Your task to perform on an android device: Add macbook pro to the cart on costco.com, then select checkout. Image 0: 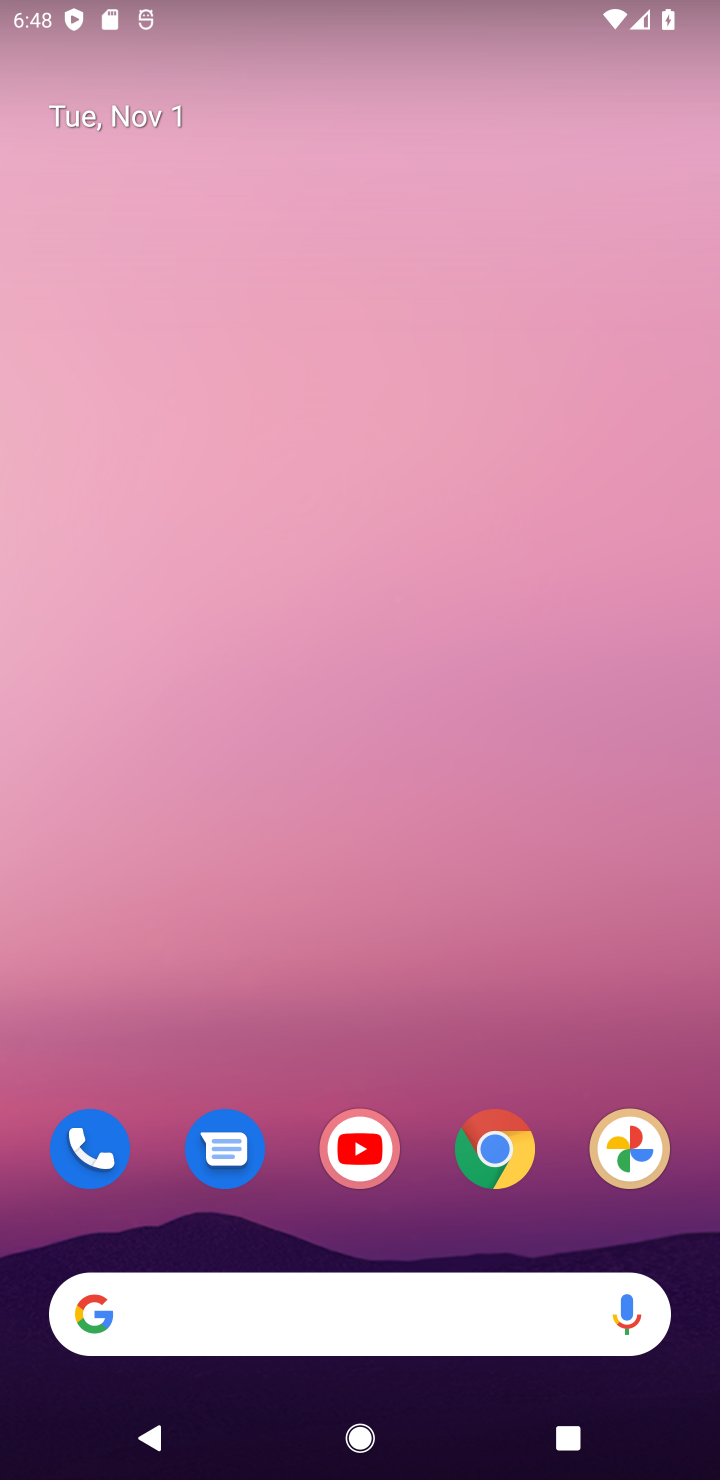
Step 0: drag from (292, 1246) to (482, 249)
Your task to perform on an android device: Add macbook pro to the cart on costco.com, then select checkout. Image 1: 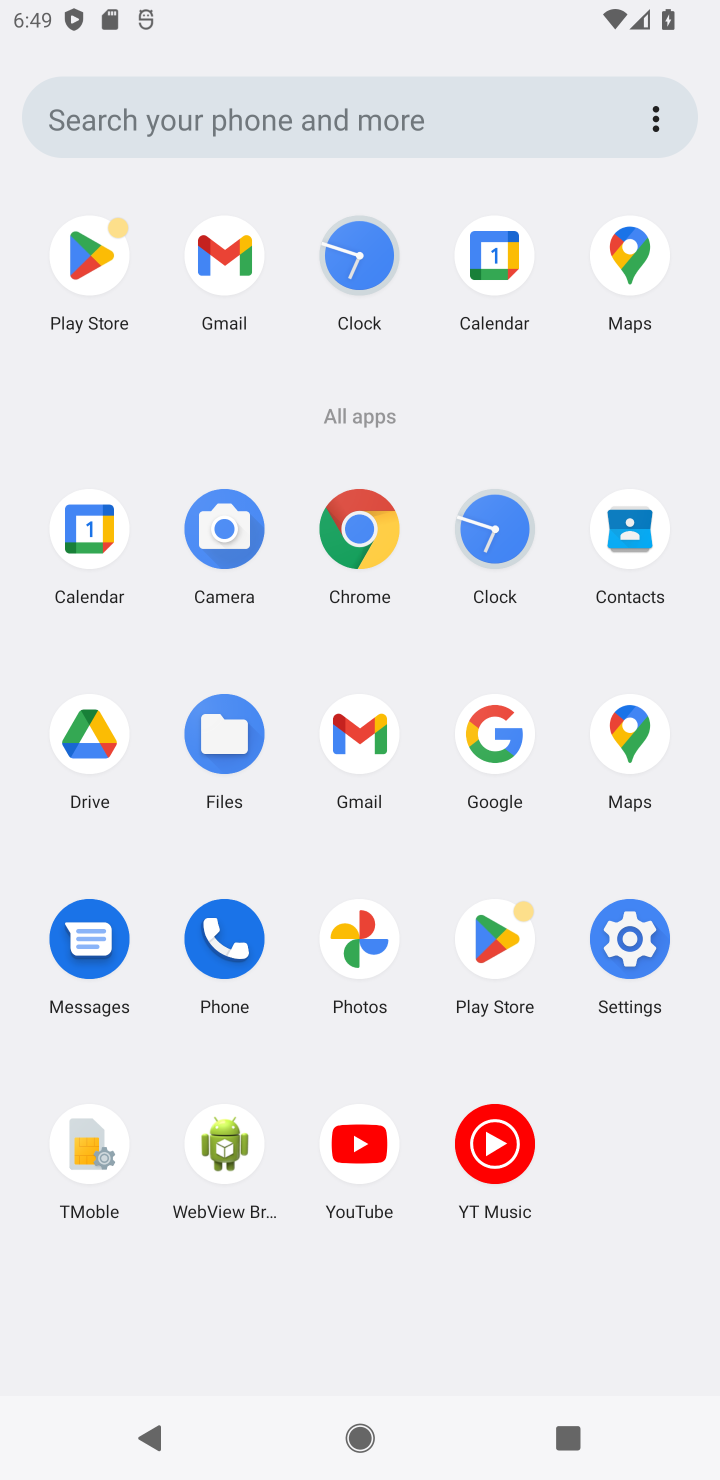
Step 1: click (366, 528)
Your task to perform on an android device: Add macbook pro to the cart on costco.com, then select checkout. Image 2: 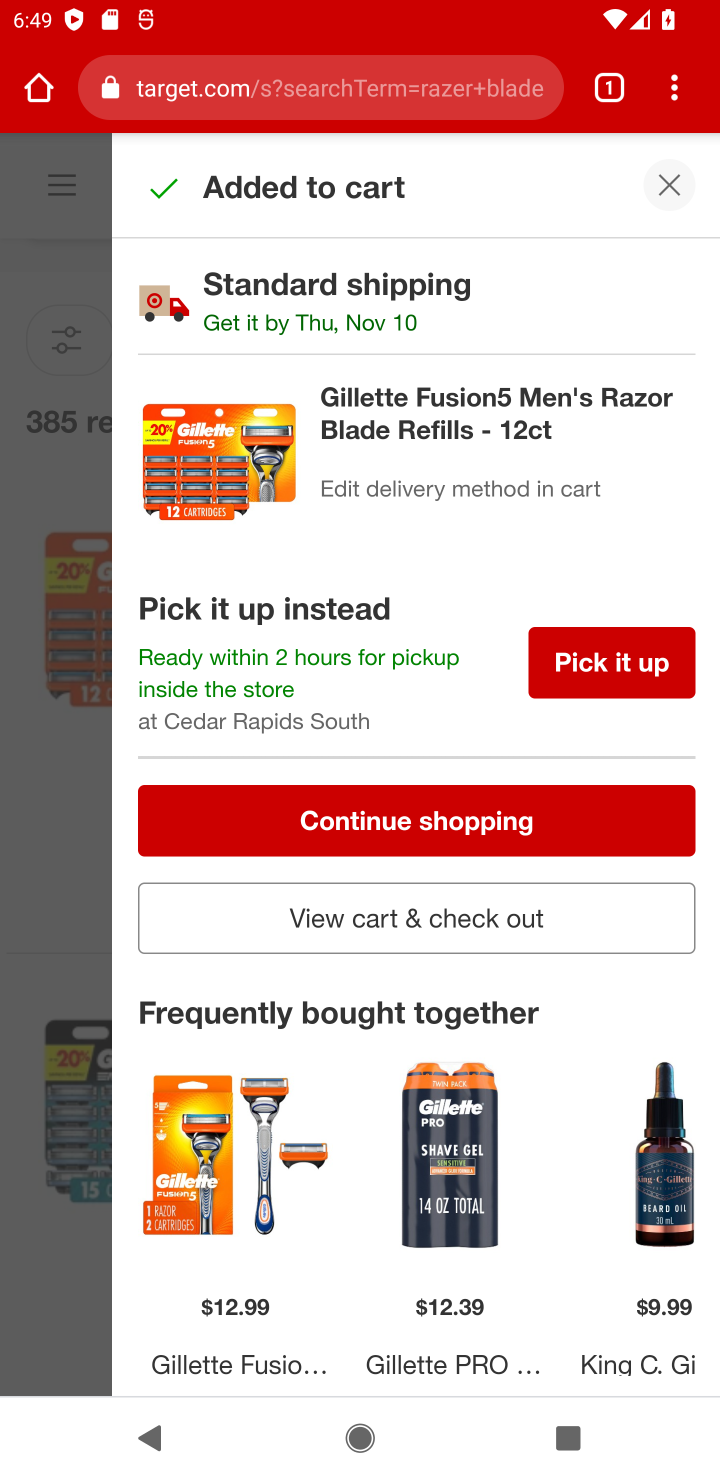
Step 2: click (467, 97)
Your task to perform on an android device: Add macbook pro to the cart on costco.com, then select checkout. Image 3: 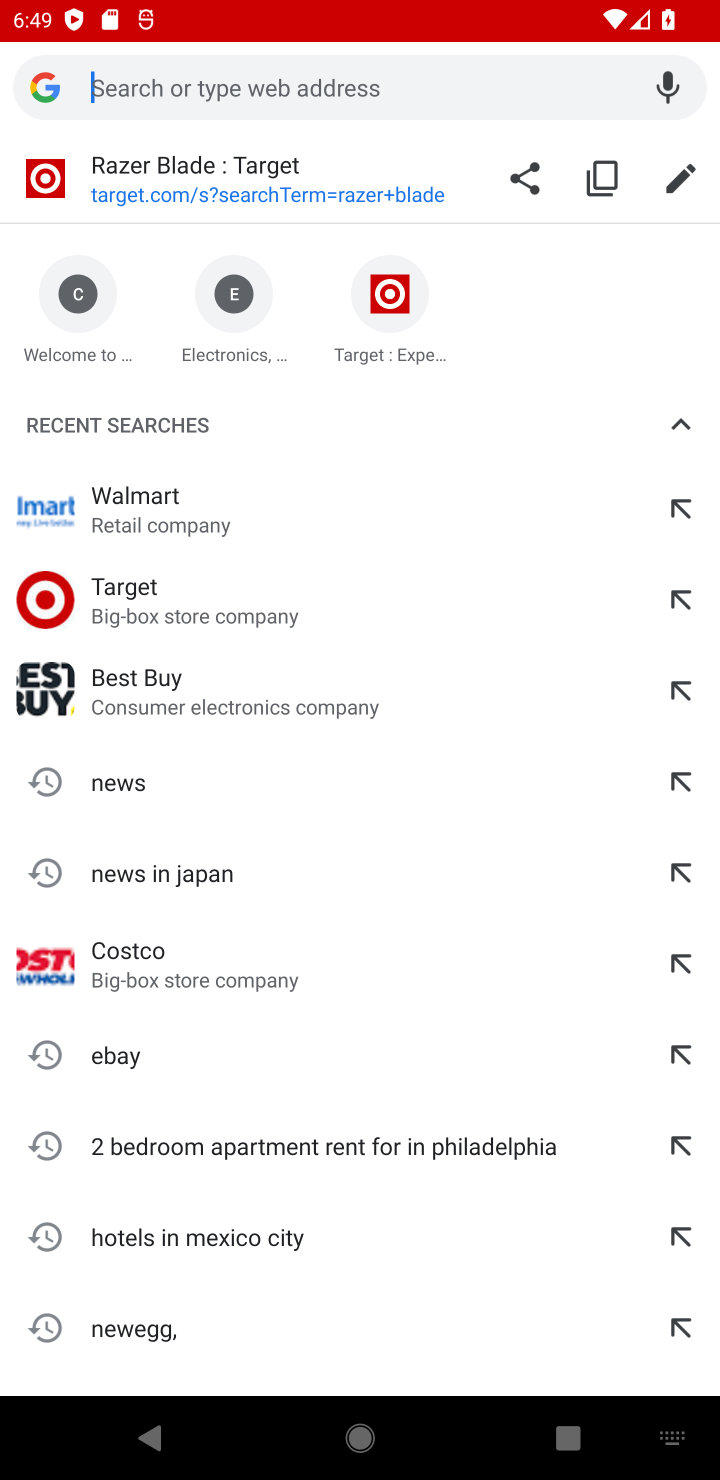
Step 3: type "costco.com"
Your task to perform on an android device: Add macbook pro to the cart on costco.com, then select checkout. Image 4: 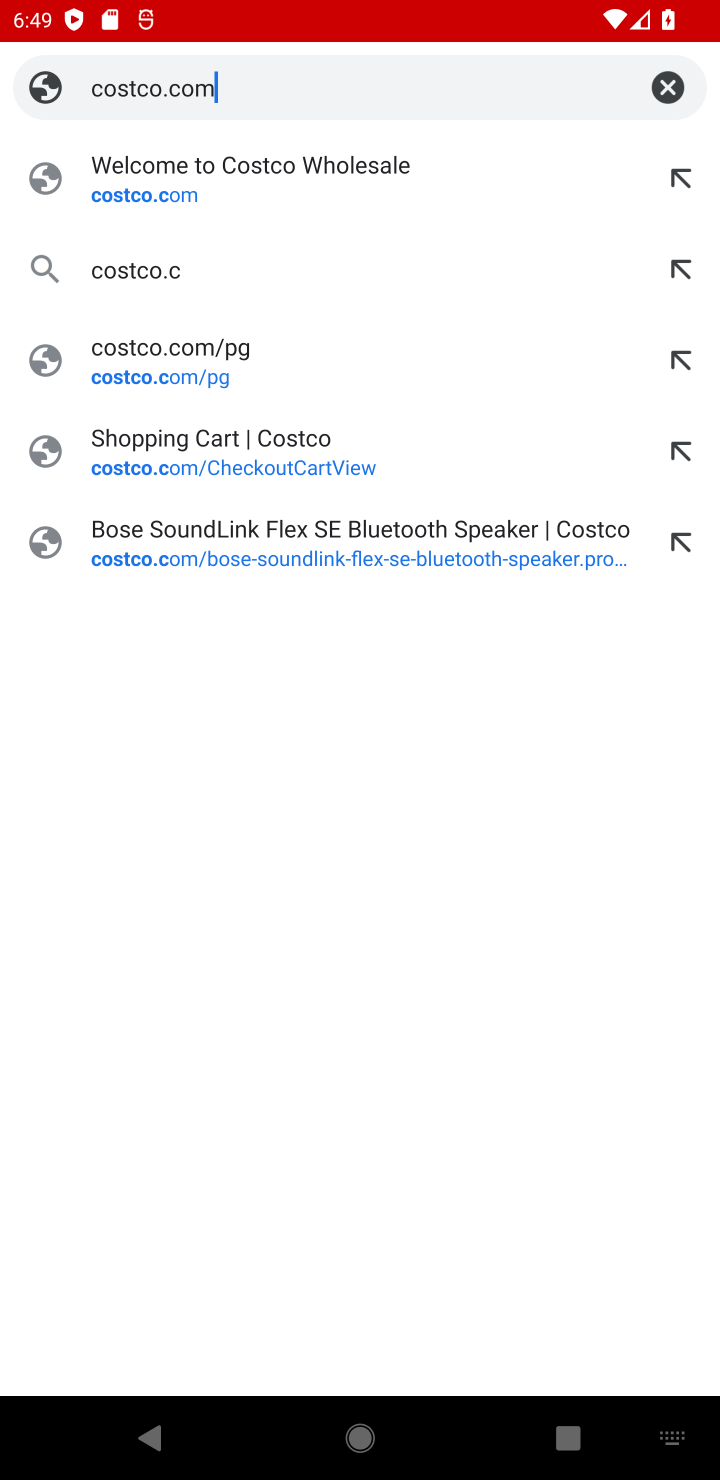
Step 4: press enter
Your task to perform on an android device: Add macbook pro to the cart on costco.com, then select checkout. Image 5: 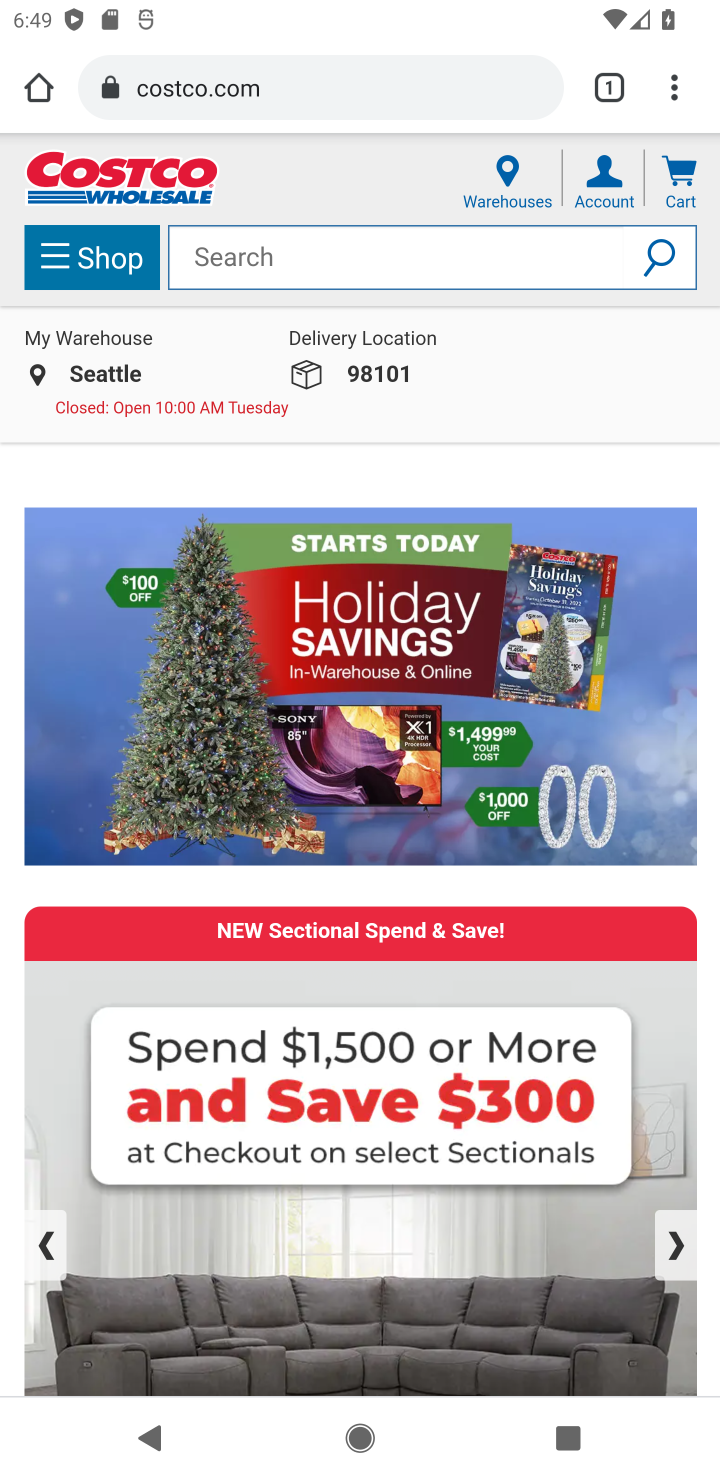
Step 5: click (520, 256)
Your task to perform on an android device: Add macbook pro to the cart on costco.com, then select checkout. Image 6: 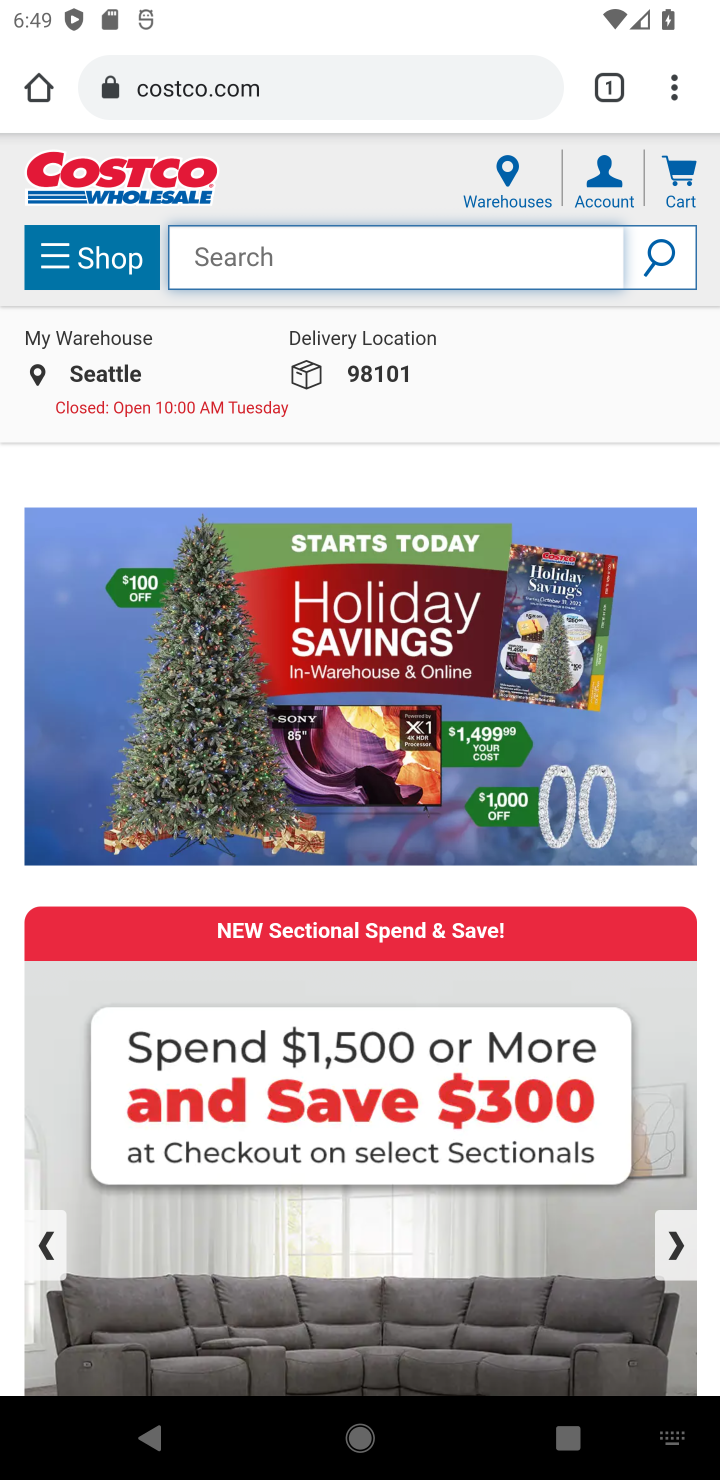
Step 6: type "macbook pro"
Your task to perform on an android device: Add macbook pro to the cart on costco.com, then select checkout. Image 7: 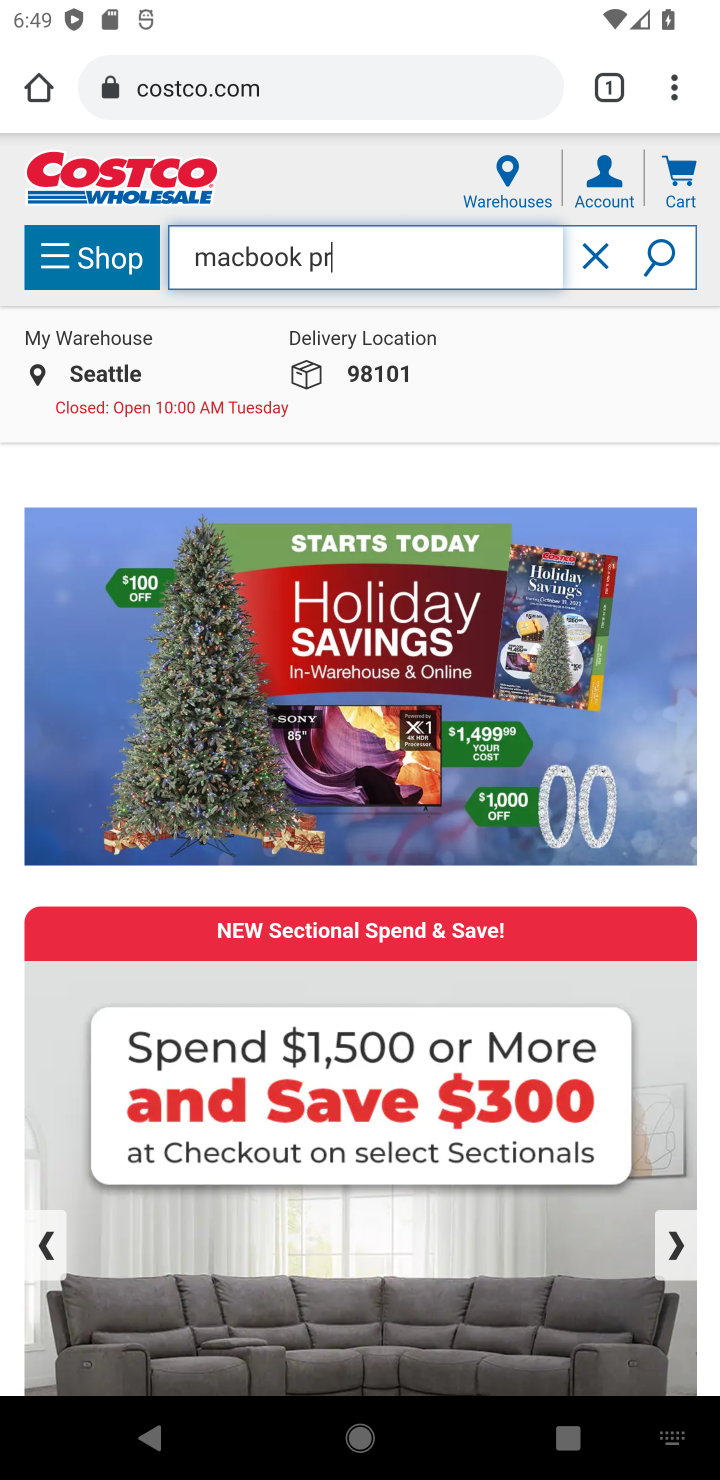
Step 7: press enter
Your task to perform on an android device: Add macbook pro to the cart on costco.com, then select checkout. Image 8: 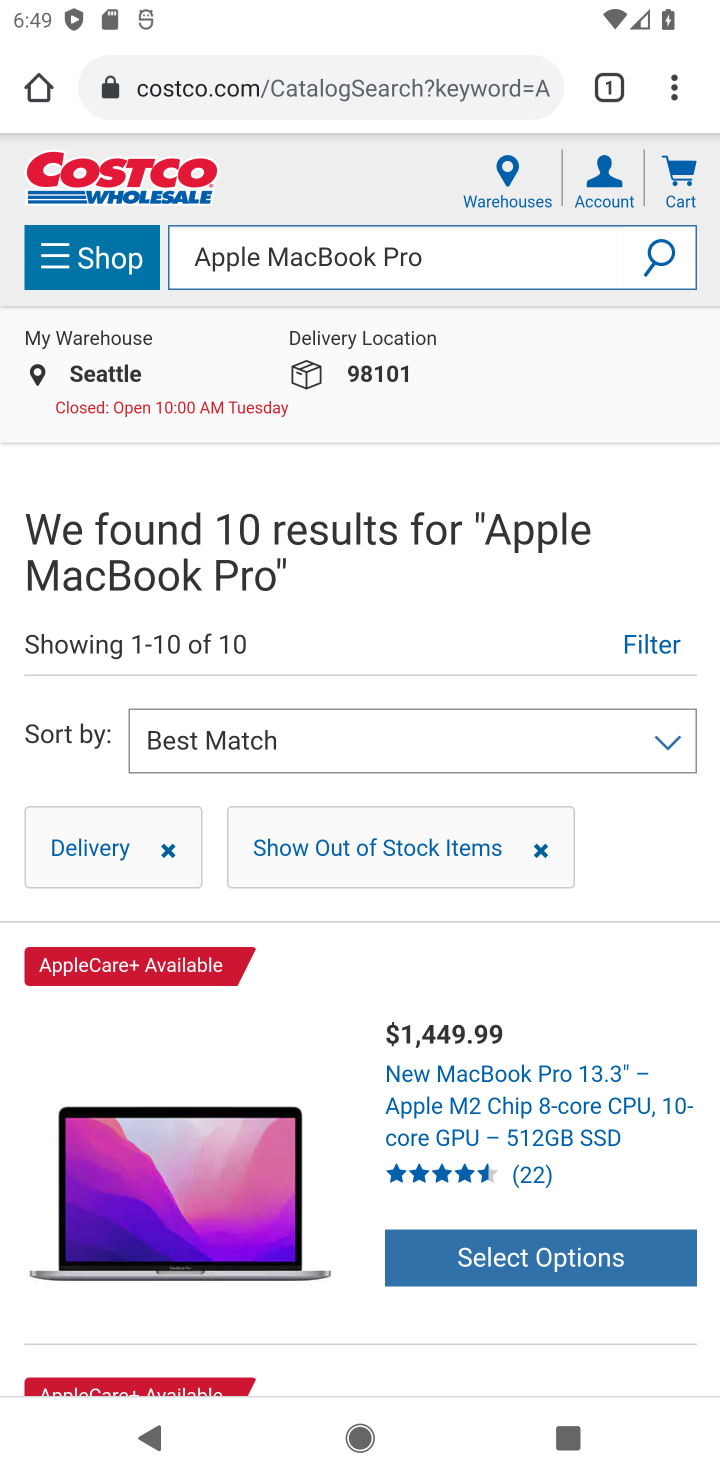
Step 8: click (491, 1110)
Your task to perform on an android device: Add macbook pro to the cart on costco.com, then select checkout. Image 9: 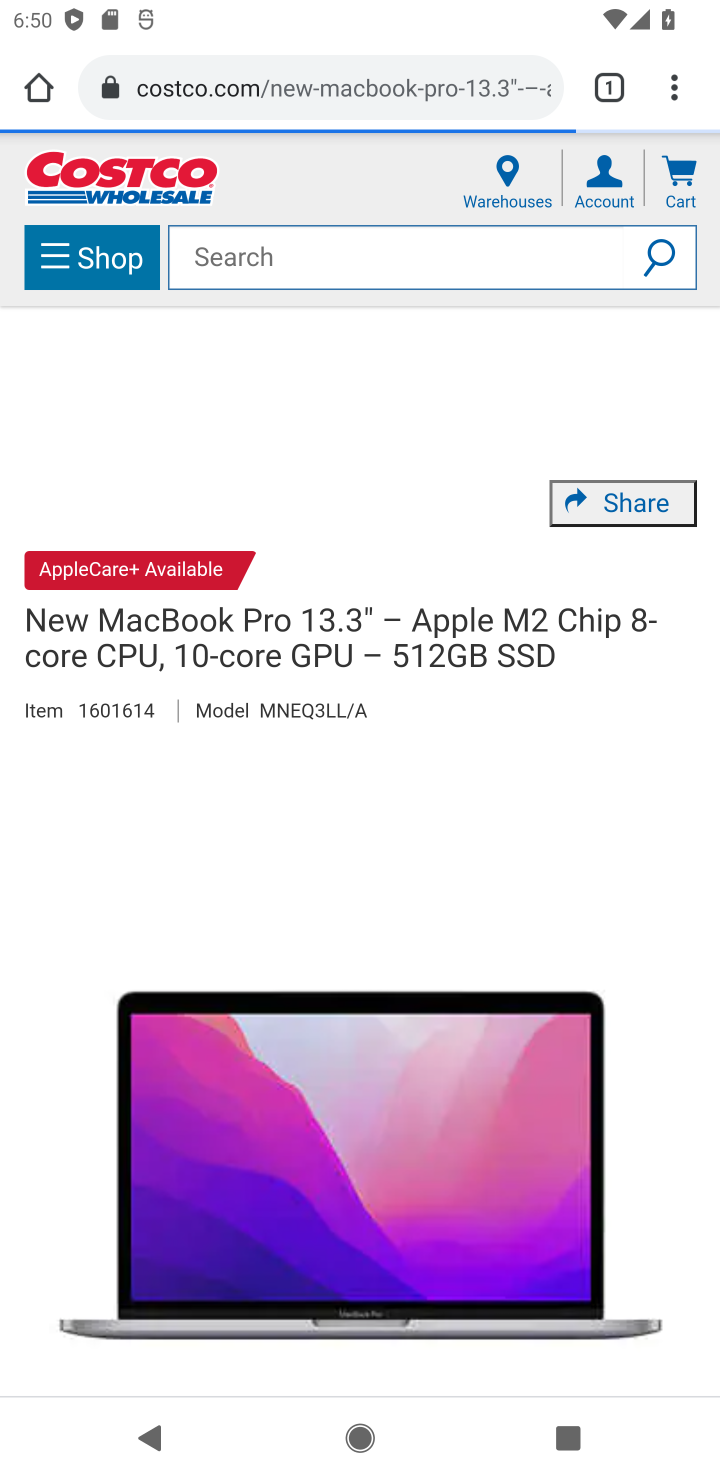
Step 9: drag from (472, 873) to (545, 38)
Your task to perform on an android device: Add macbook pro to the cart on costco.com, then select checkout. Image 10: 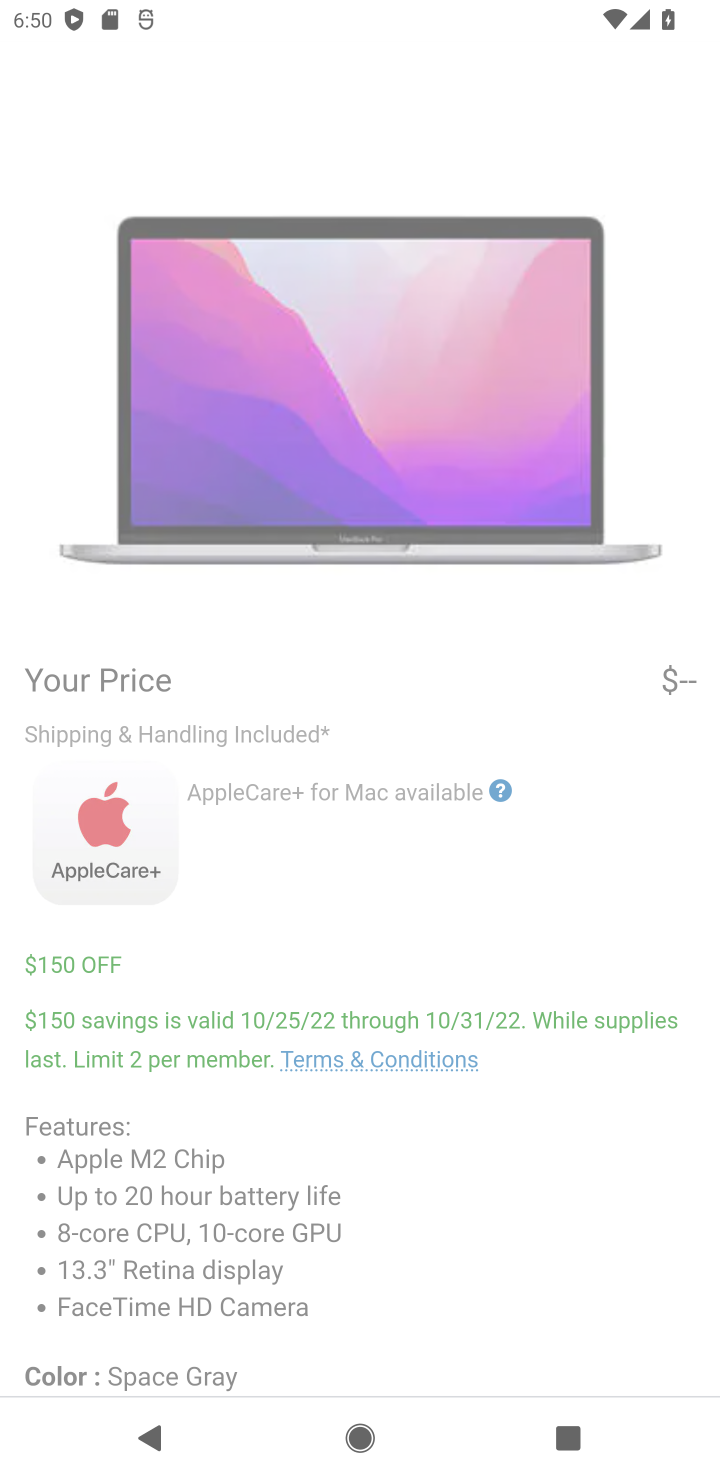
Step 10: drag from (408, 1003) to (450, 389)
Your task to perform on an android device: Add macbook pro to the cart on costco.com, then select checkout. Image 11: 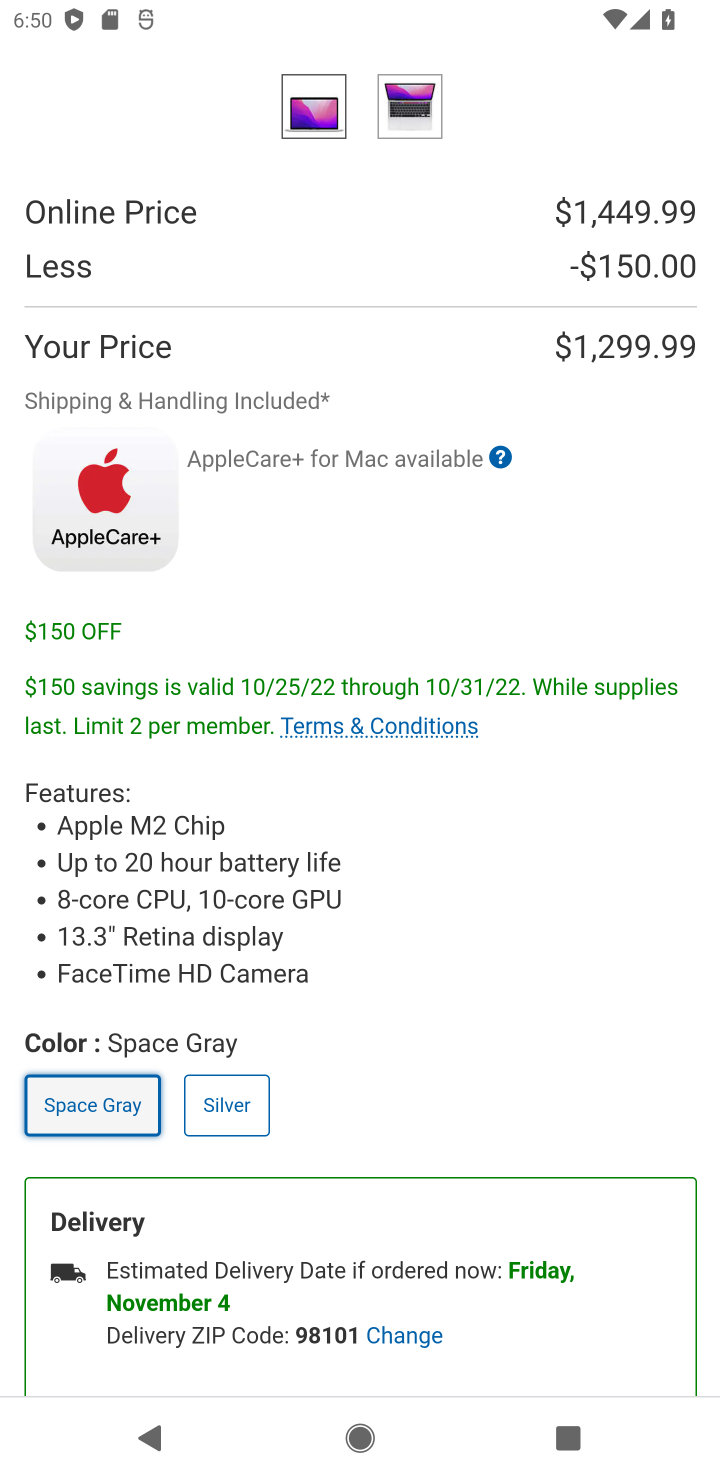
Step 11: drag from (520, 1098) to (580, 440)
Your task to perform on an android device: Add macbook pro to the cart on costco.com, then select checkout. Image 12: 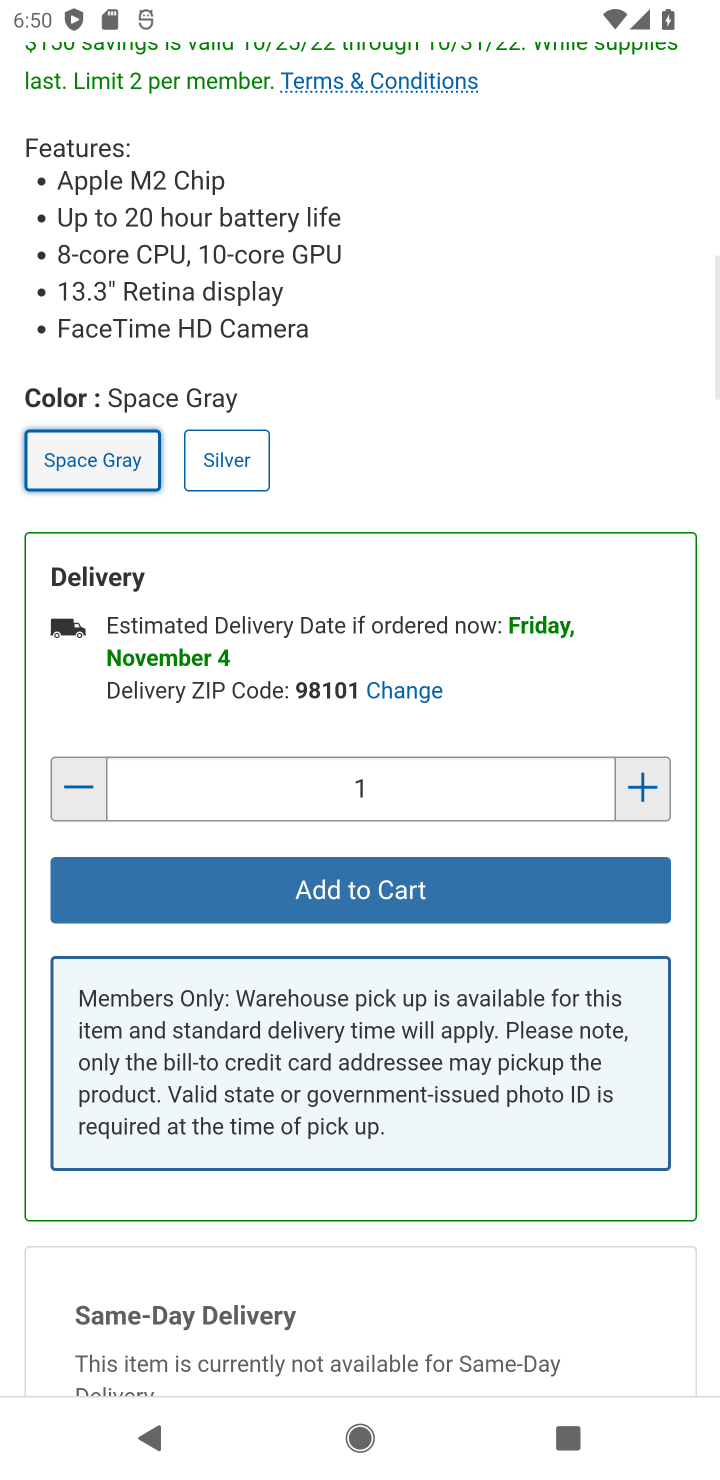
Step 12: drag from (511, 966) to (568, 277)
Your task to perform on an android device: Add macbook pro to the cart on costco.com, then select checkout. Image 13: 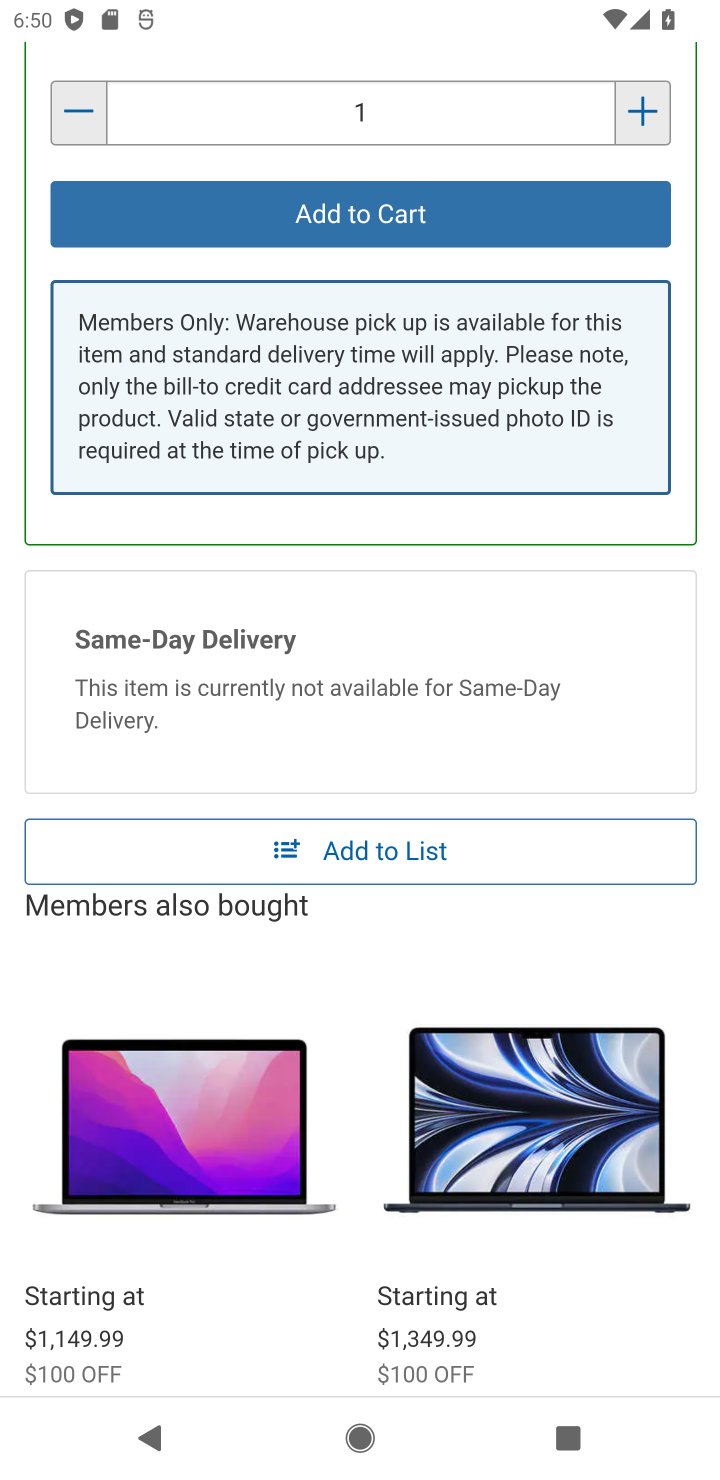
Step 13: drag from (488, 315) to (435, 1476)
Your task to perform on an android device: Add macbook pro to the cart on costco.com, then select checkout. Image 14: 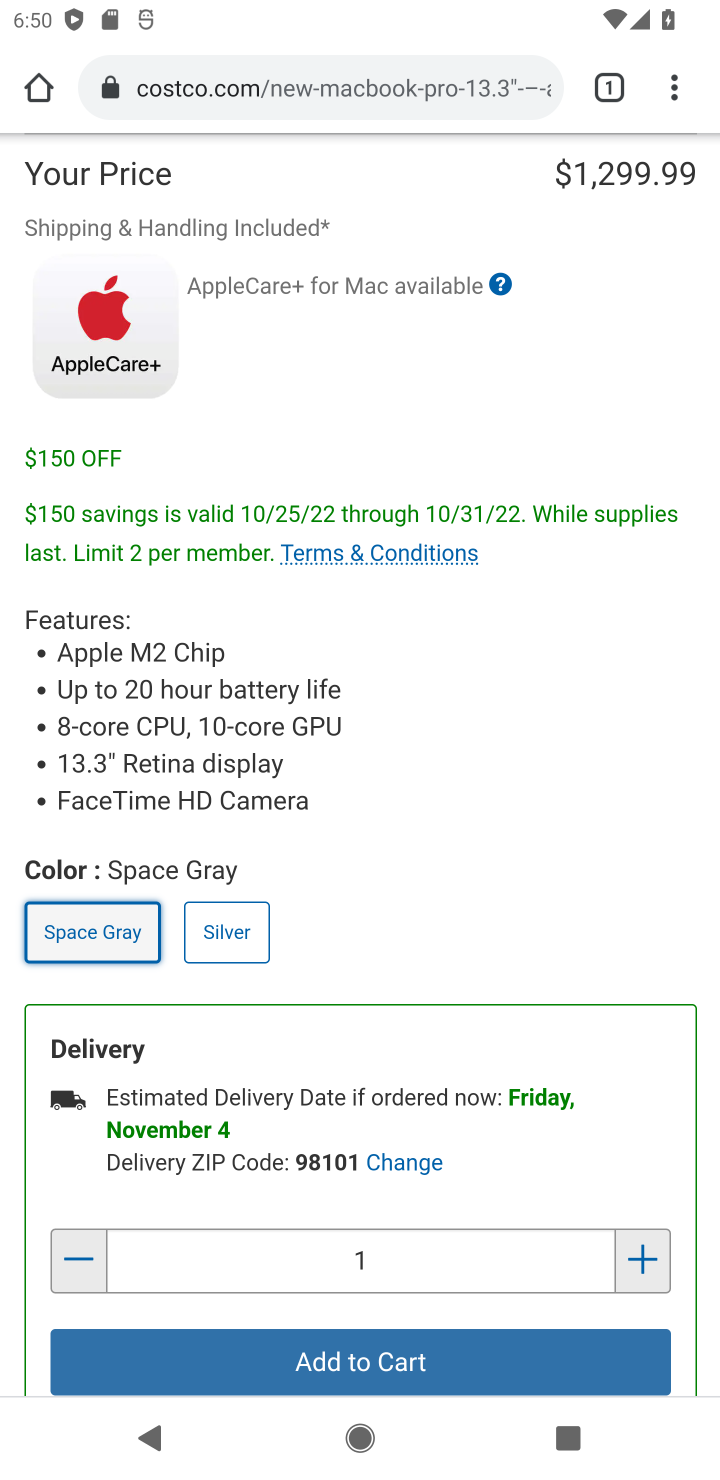
Step 14: drag from (422, 534) to (405, 1412)
Your task to perform on an android device: Add macbook pro to the cart on costco.com, then select checkout. Image 15: 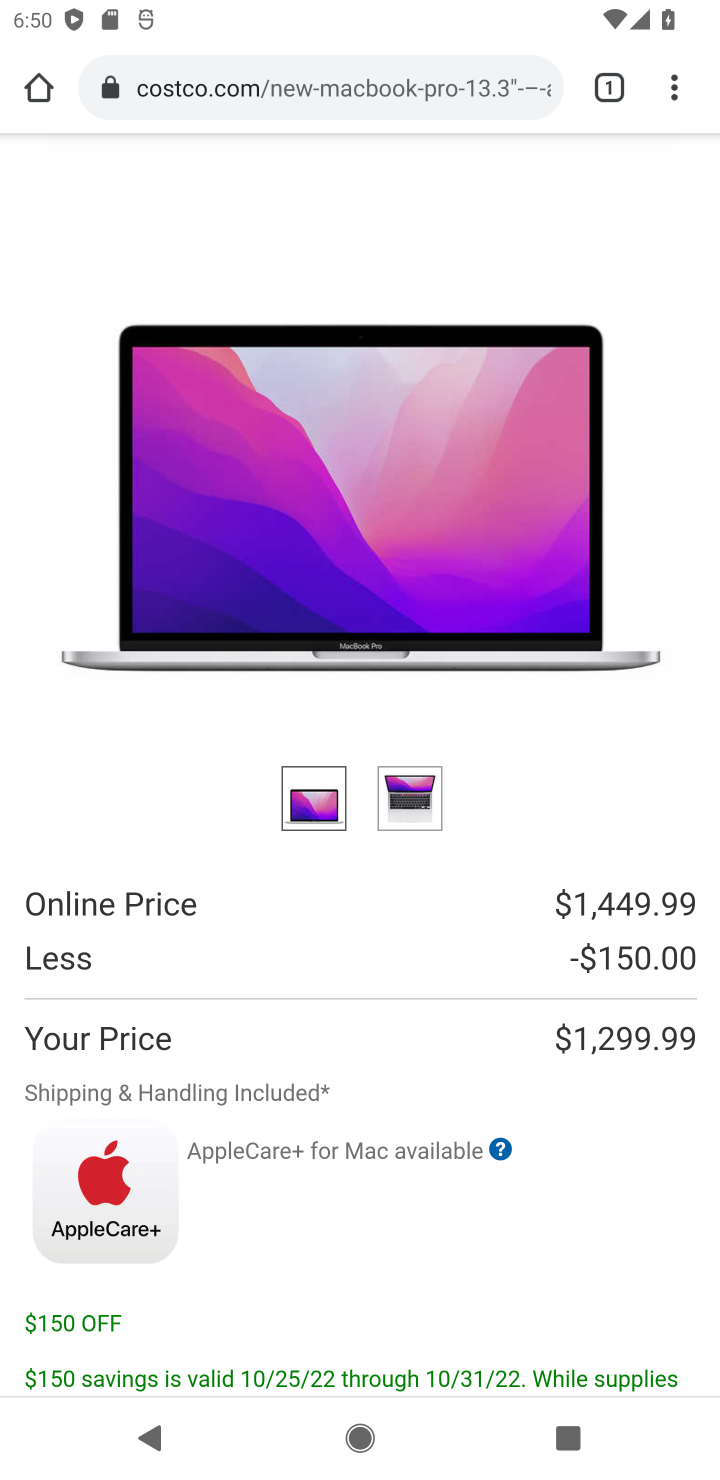
Step 15: drag from (427, 1218) to (399, 274)
Your task to perform on an android device: Add macbook pro to the cart on costco.com, then select checkout. Image 16: 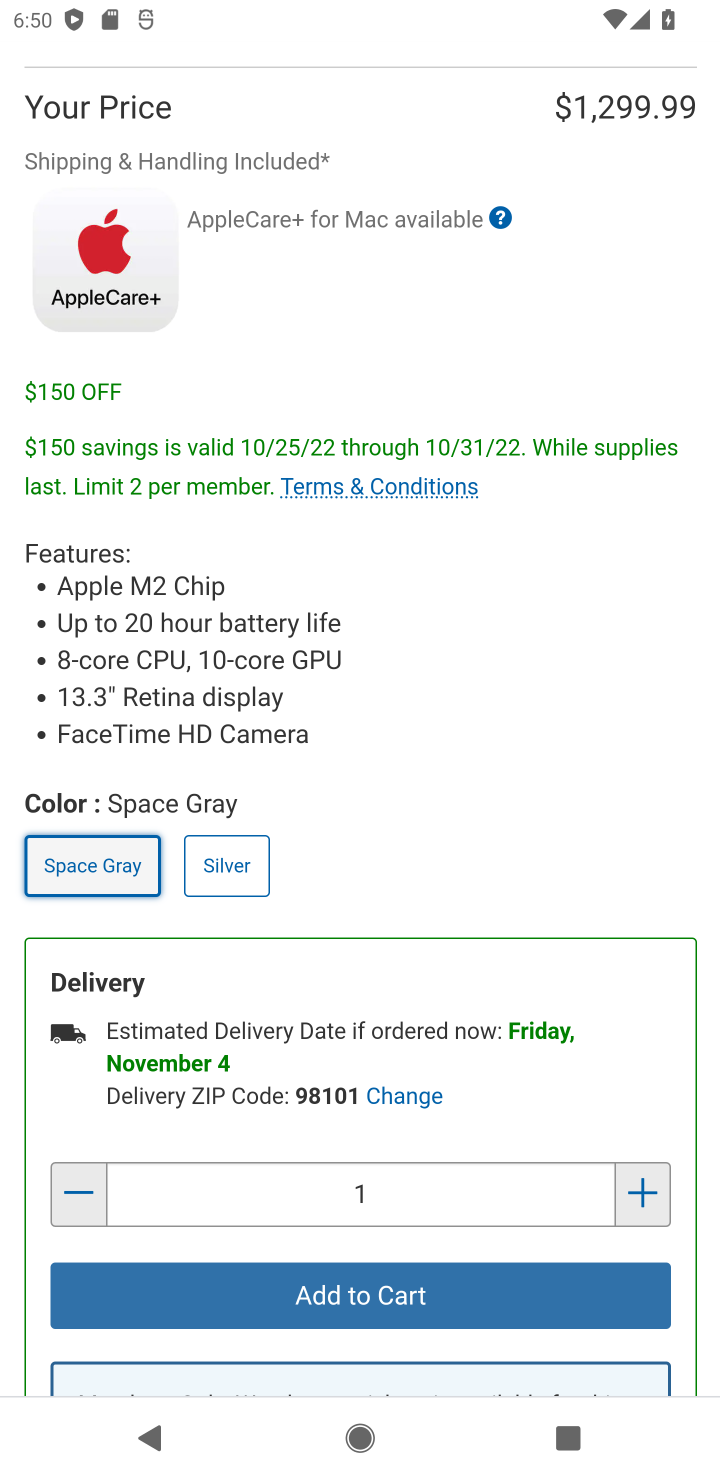
Step 16: click (423, 1287)
Your task to perform on an android device: Add macbook pro to the cart on costco.com, then select checkout. Image 17: 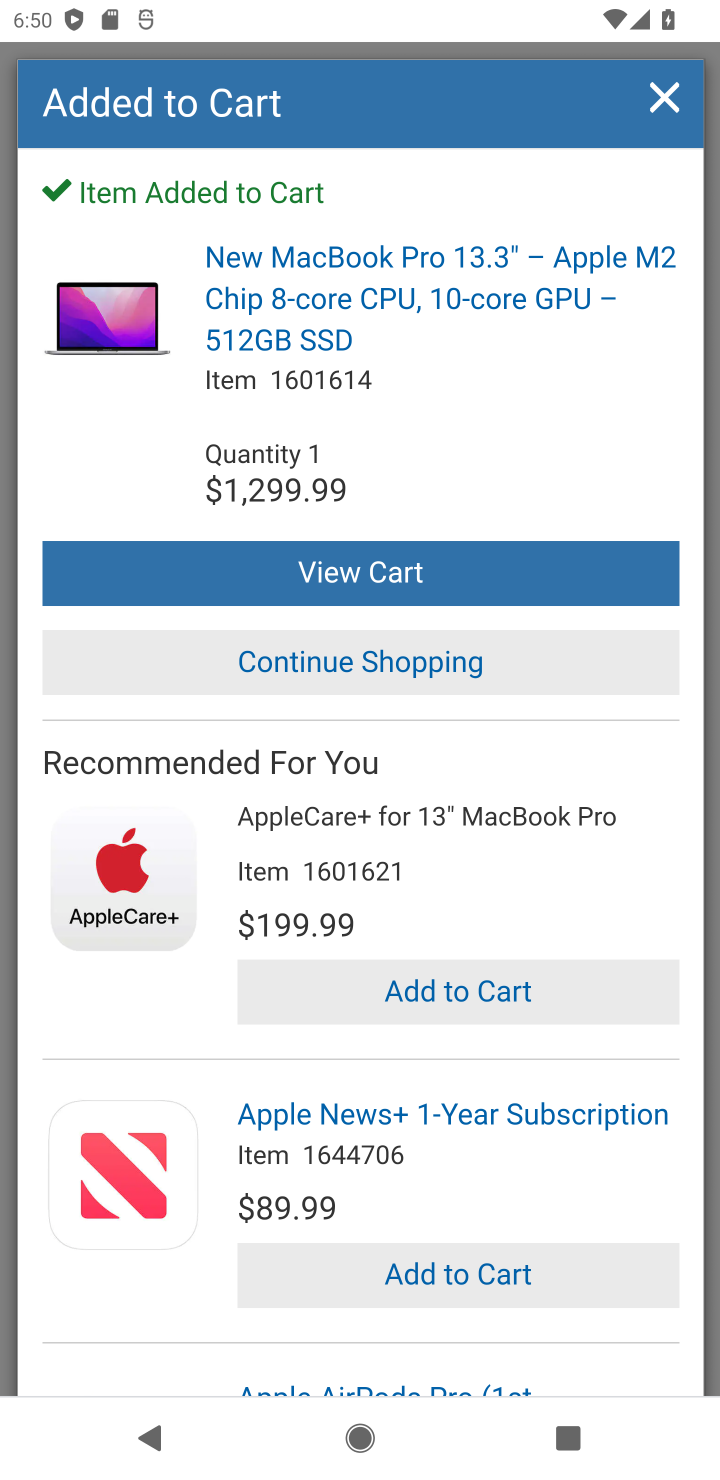
Step 17: click (447, 569)
Your task to perform on an android device: Add macbook pro to the cart on costco.com, then select checkout. Image 18: 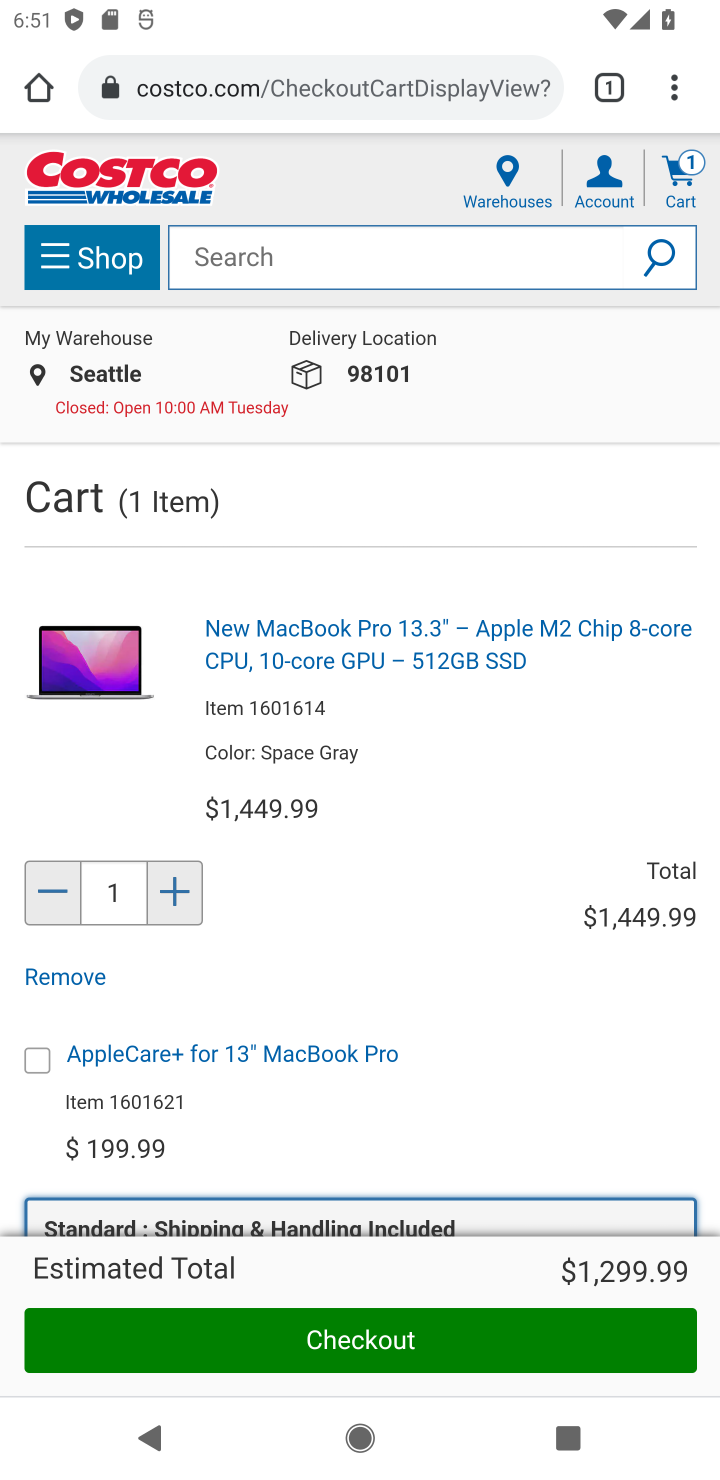
Step 18: click (472, 1343)
Your task to perform on an android device: Add macbook pro to the cart on costco.com, then select checkout. Image 19: 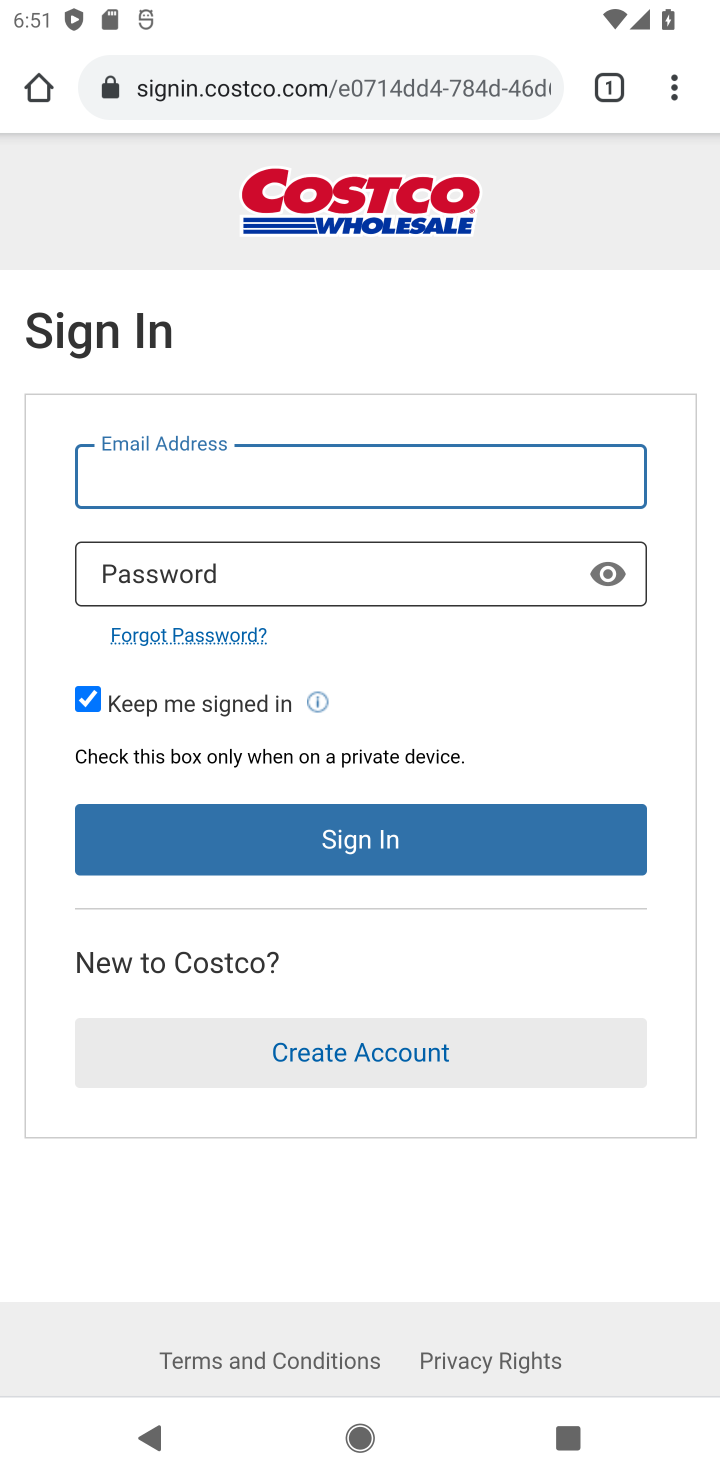
Step 19: task complete